Your task to perform on an android device: read, delete, or share a saved page in the chrome app Image 0: 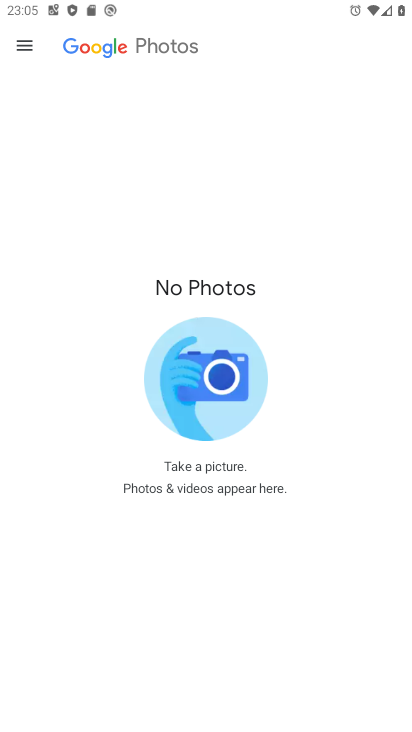
Step 0: press home button
Your task to perform on an android device: read, delete, or share a saved page in the chrome app Image 1: 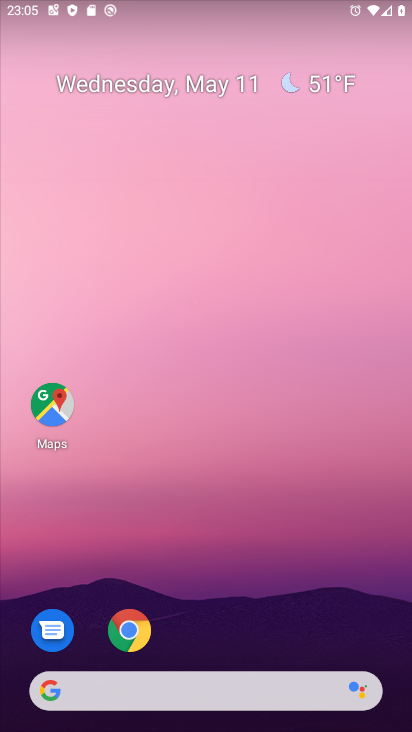
Step 1: click (126, 627)
Your task to perform on an android device: read, delete, or share a saved page in the chrome app Image 2: 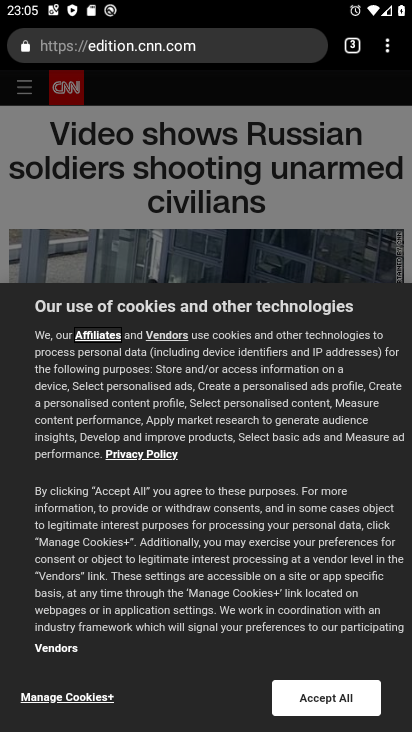
Step 2: click (387, 53)
Your task to perform on an android device: read, delete, or share a saved page in the chrome app Image 3: 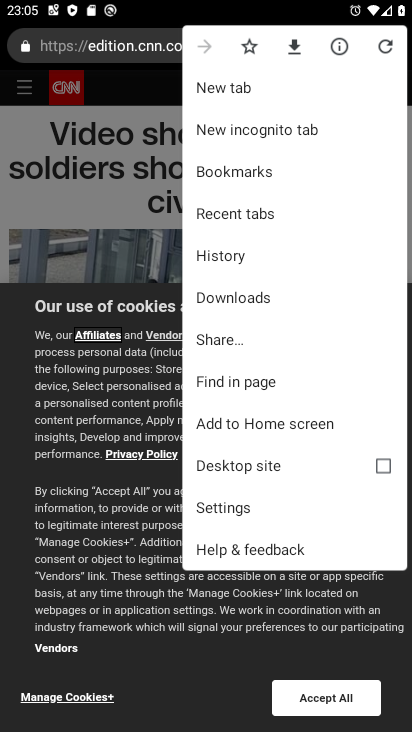
Step 3: click (232, 294)
Your task to perform on an android device: read, delete, or share a saved page in the chrome app Image 4: 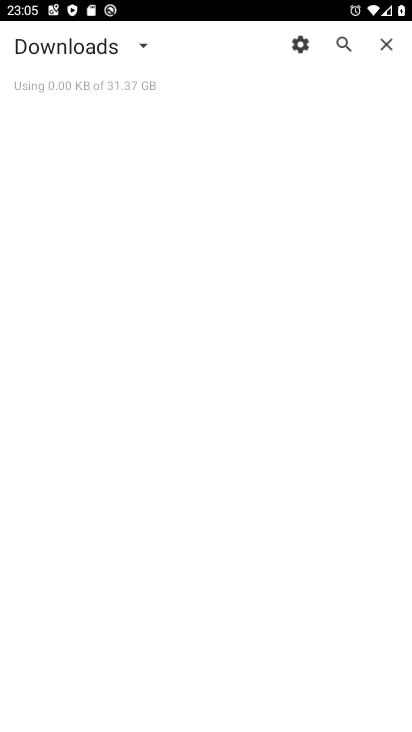
Step 4: click (141, 32)
Your task to perform on an android device: read, delete, or share a saved page in the chrome app Image 5: 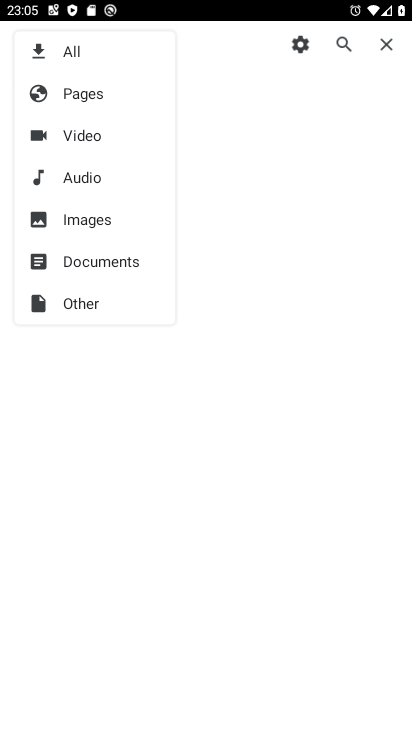
Step 5: click (87, 92)
Your task to perform on an android device: read, delete, or share a saved page in the chrome app Image 6: 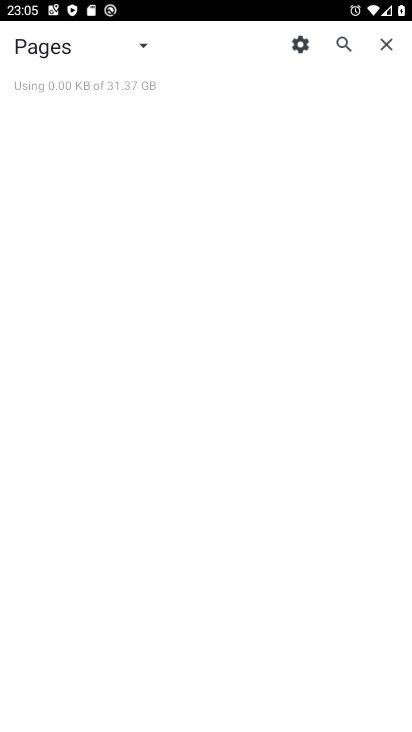
Step 6: task complete